Your task to perform on an android device: choose inbox layout in the gmail app Image 0: 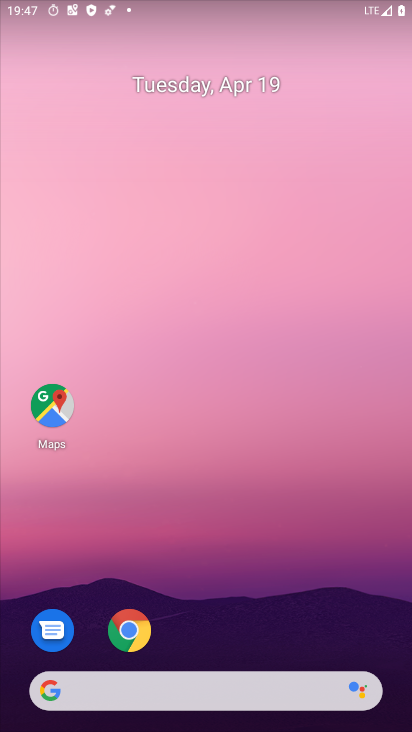
Step 0: drag from (189, 667) to (184, 120)
Your task to perform on an android device: choose inbox layout in the gmail app Image 1: 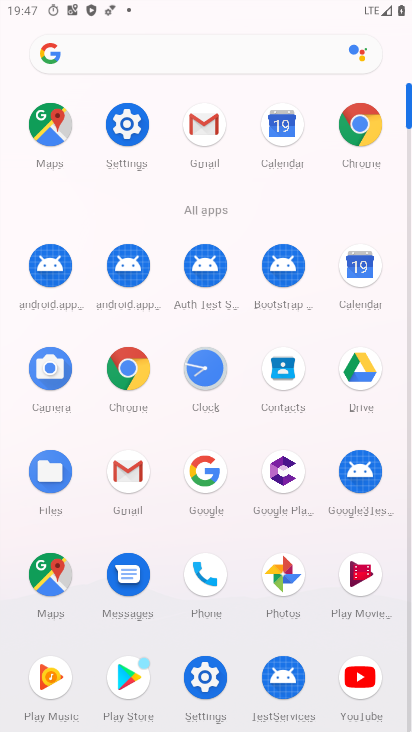
Step 1: click (137, 472)
Your task to perform on an android device: choose inbox layout in the gmail app Image 2: 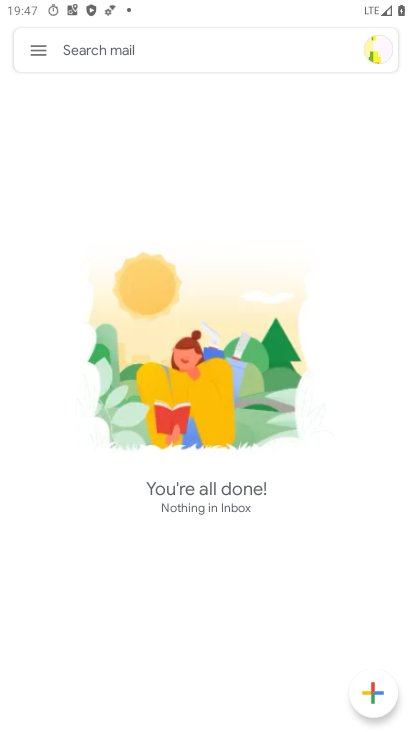
Step 2: click (35, 55)
Your task to perform on an android device: choose inbox layout in the gmail app Image 3: 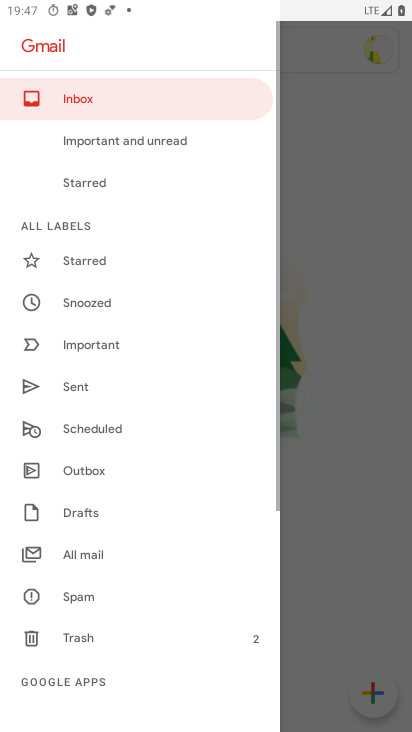
Step 3: click (105, 104)
Your task to perform on an android device: choose inbox layout in the gmail app Image 4: 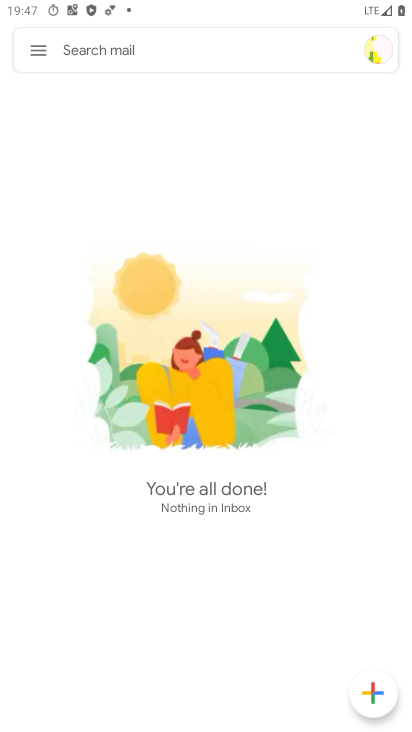
Step 4: task complete